Your task to perform on an android device: turn on improve location accuracy Image 0: 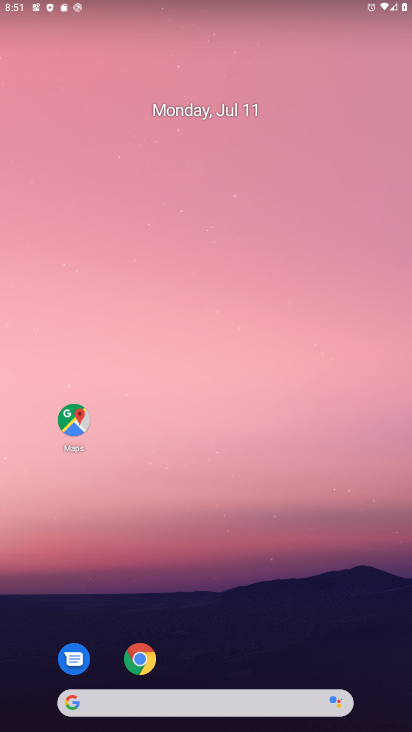
Step 0: drag from (230, 547) to (108, 12)
Your task to perform on an android device: turn on improve location accuracy Image 1: 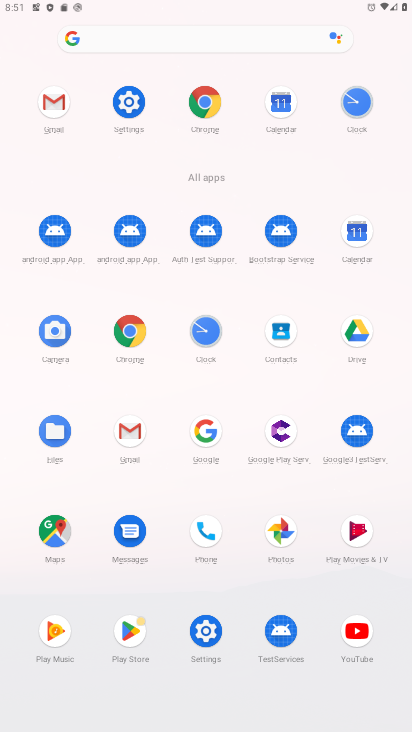
Step 1: click (126, 103)
Your task to perform on an android device: turn on improve location accuracy Image 2: 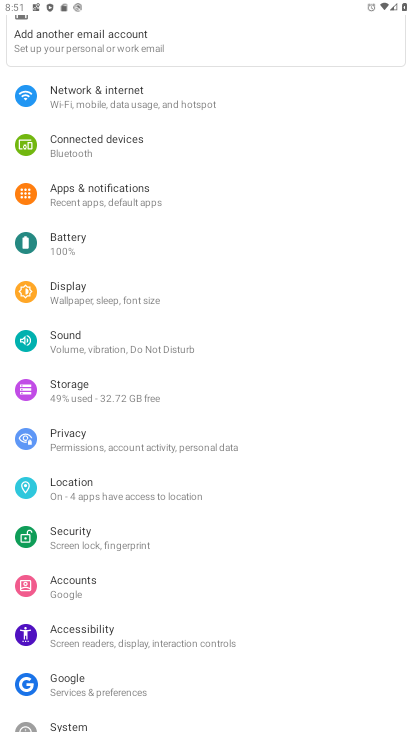
Step 2: click (78, 485)
Your task to perform on an android device: turn on improve location accuracy Image 3: 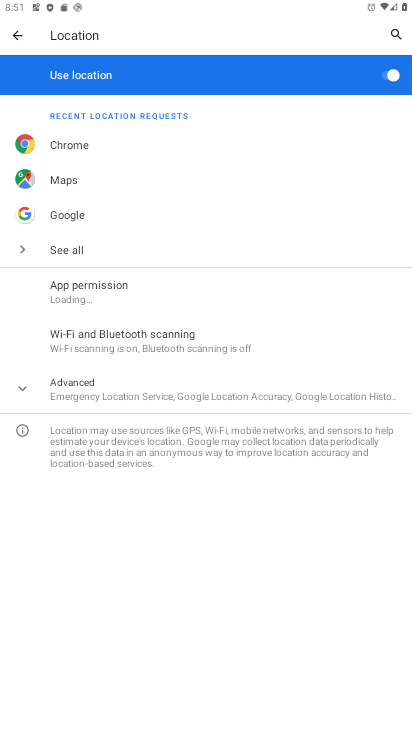
Step 3: click (41, 382)
Your task to perform on an android device: turn on improve location accuracy Image 4: 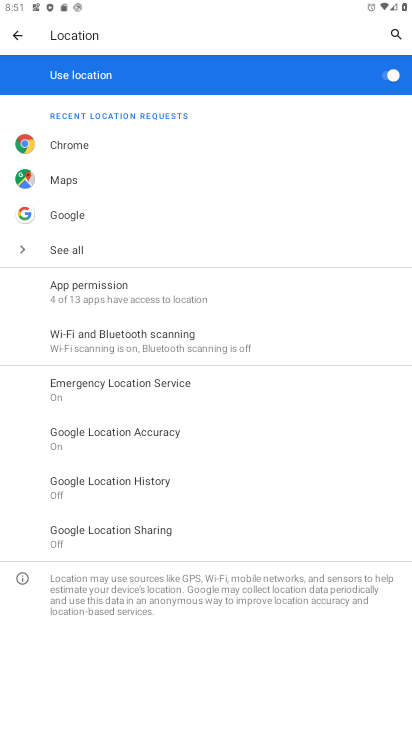
Step 4: click (131, 436)
Your task to perform on an android device: turn on improve location accuracy Image 5: 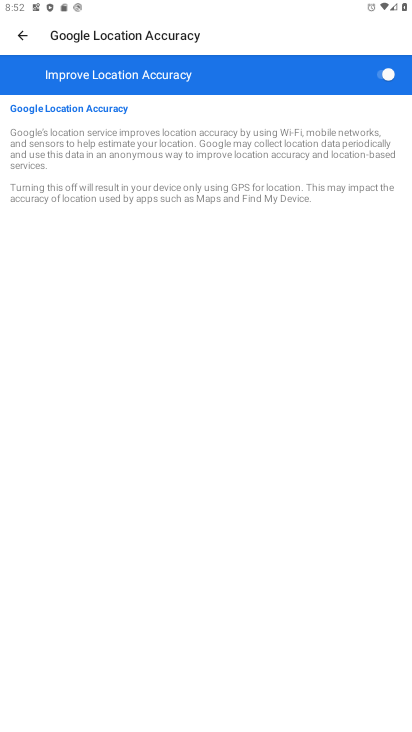
Step 5: task complete